Your task to perform on an android device: turn on translation in the chrome app Image 0: 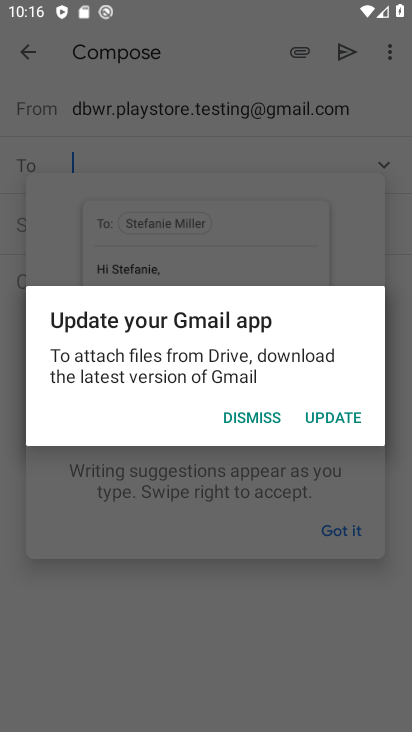
Step 0: press back button
Your task to perform on an android device: turn on translation in the chrome app Image 1: 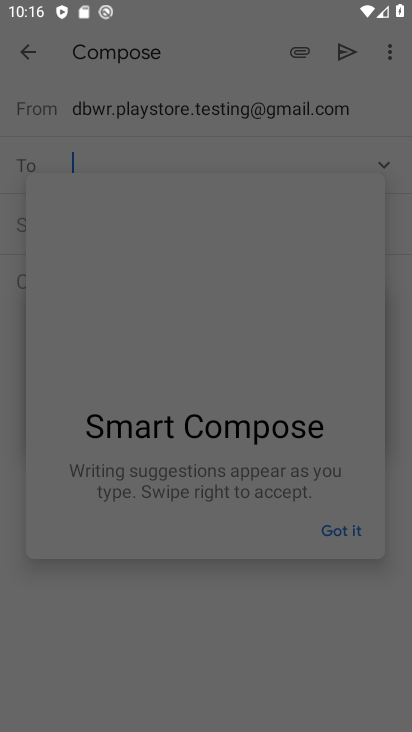
Step 1: press home button
Your task to perform on an android device: turn on translation in the chrome app Image 2: 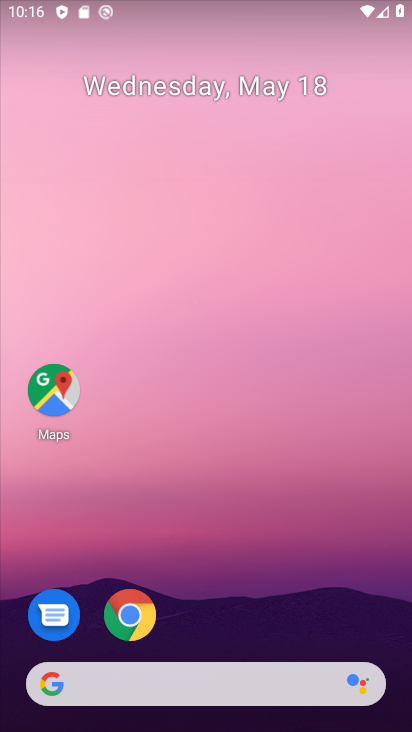
Step 2: drag from (199, 594) to (196, 49)
Your task to perform on an android device: turn on translation in the chrome app Image 3: 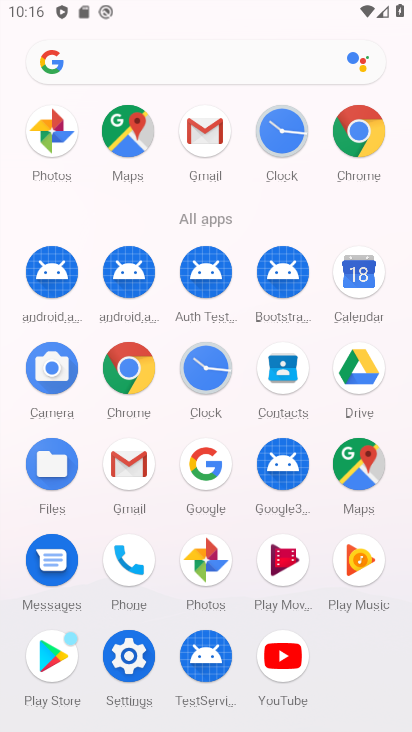
Step 3: click (354, 126)
Your task to perform on an android device: turn on translation in the chrome app Image 4: 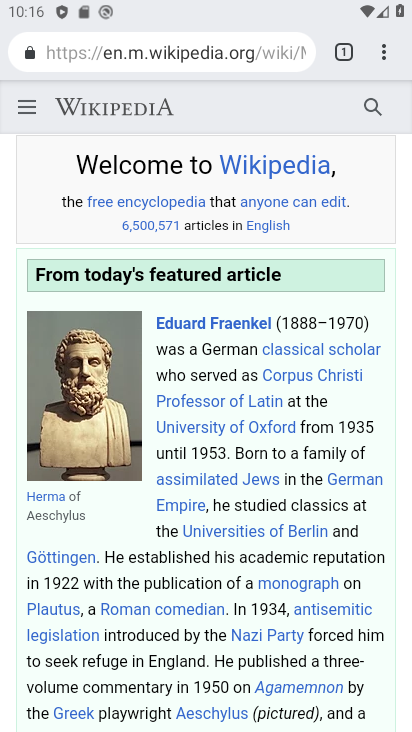
Step 4: drag from (376, 54) to (203, 621)
Your task to perform on an android device: turn on translation in the chrome app Image 5: 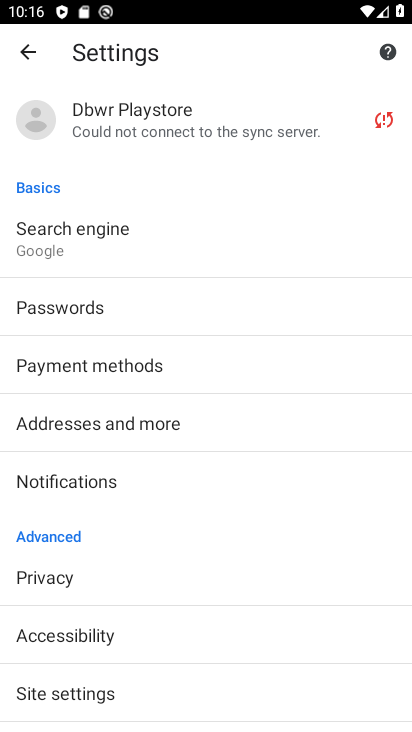
Step 5: drag from (162, 648) to (210, 213)
Your task to perform on an android device: turn on translation in the chrome app Image 6: 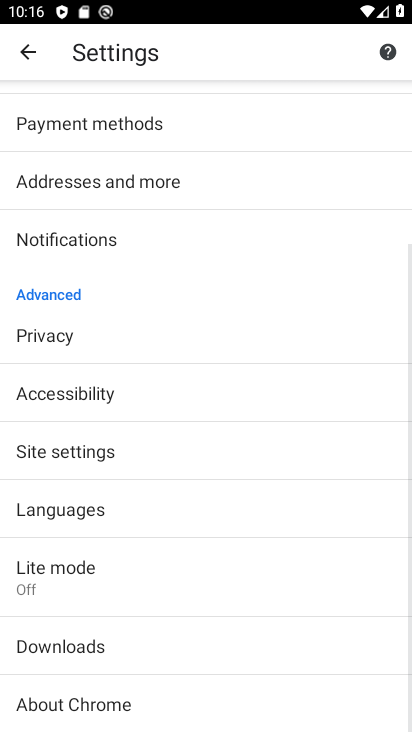
Step 6: click (98, 502)
Your task to perform on an android device: turn on translation in the chrome app Image 7: 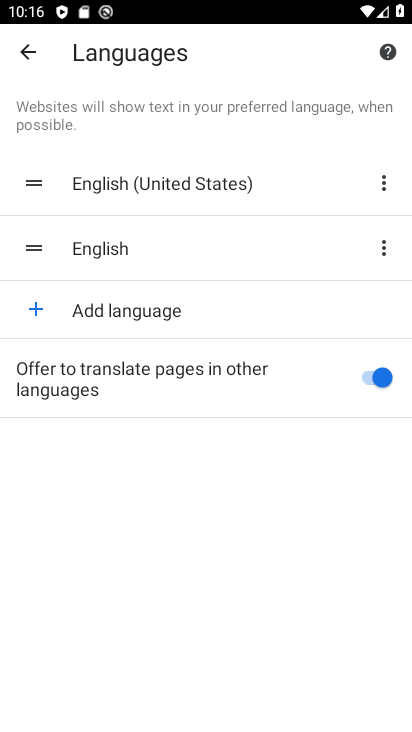
Step 7: task complete